Your task to perform on an android device: see tabs open on other devices in the chrome app Image 0: 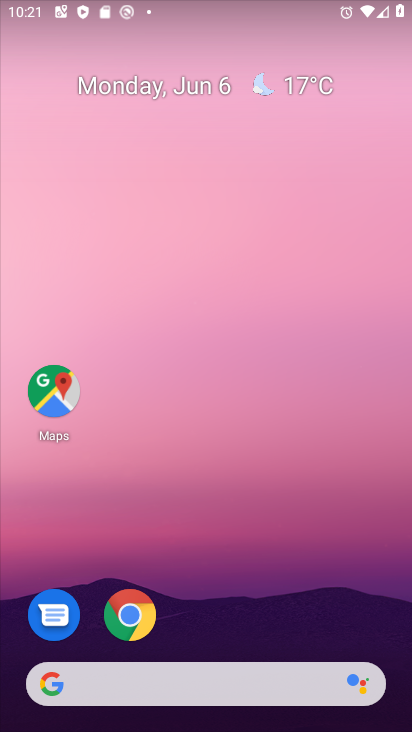
Step 0: click (124, 605)
Your task to perform on an android device: see tabs open on other devices in the chrome app Image 1: 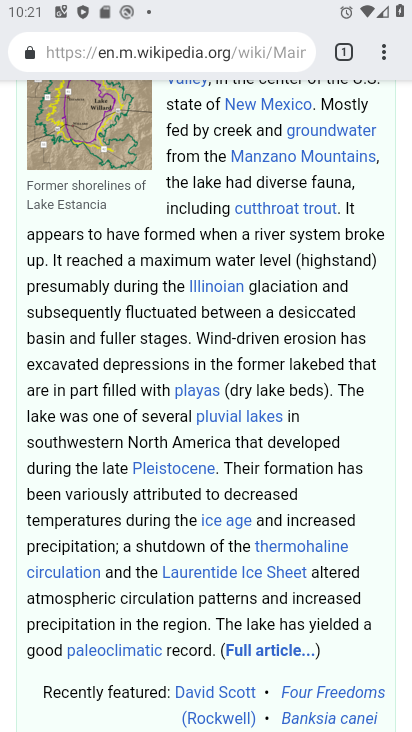
Step 1: click (377, 47)
Your task to perform on an android device: see tabs open on other devices in the chrome app Image 2: 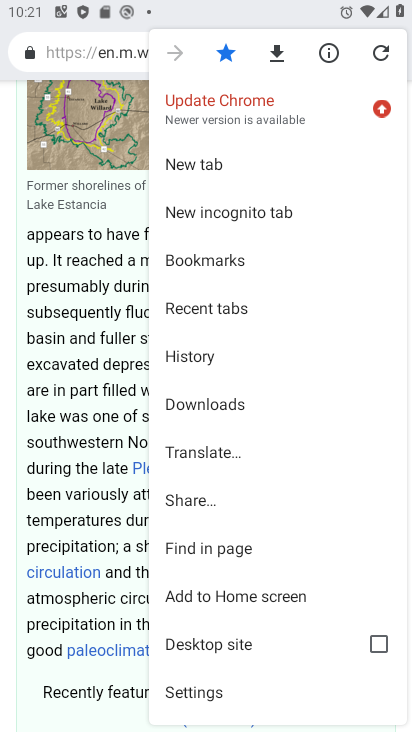
Step 2: click (267, 303)
Your task to perform on an android device: see tabs open on other devices in the chrome app Image 3: 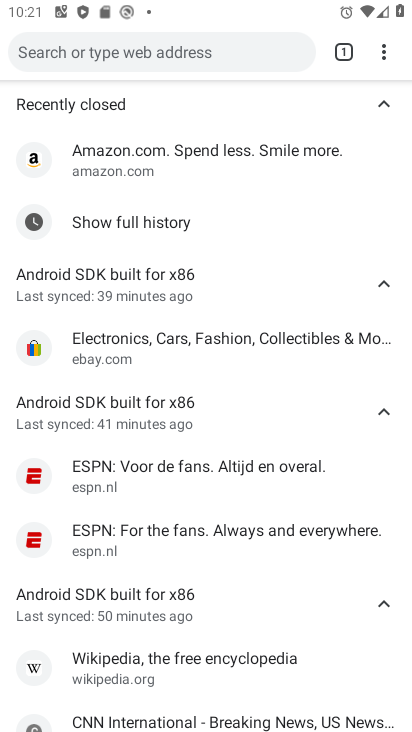
Step 3: task complete